Your task to perform on an android device: change the clock style Image 0: 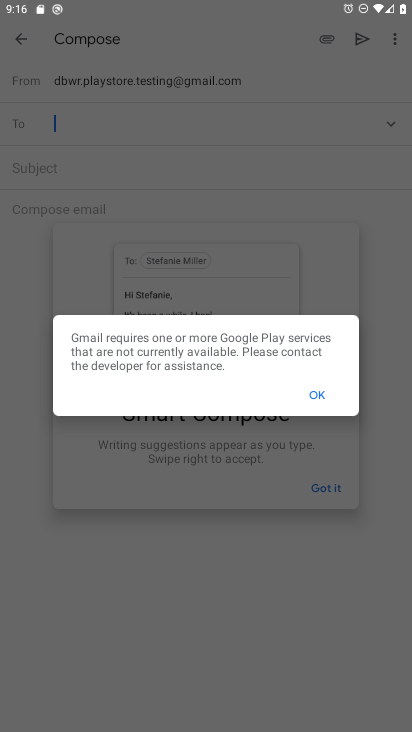
Step 0: press home button
Your task to perform on an android device: change the clock style Image 1: 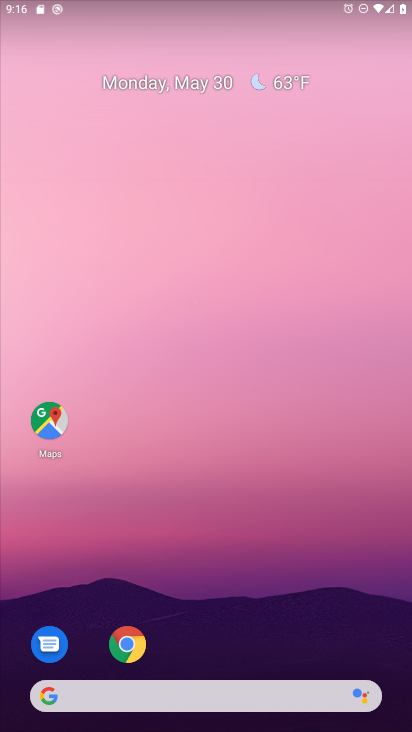
Step 1: drag from (233, 611) to (251, 19)
Your task to perform on an android device: change the clock style Image 2: 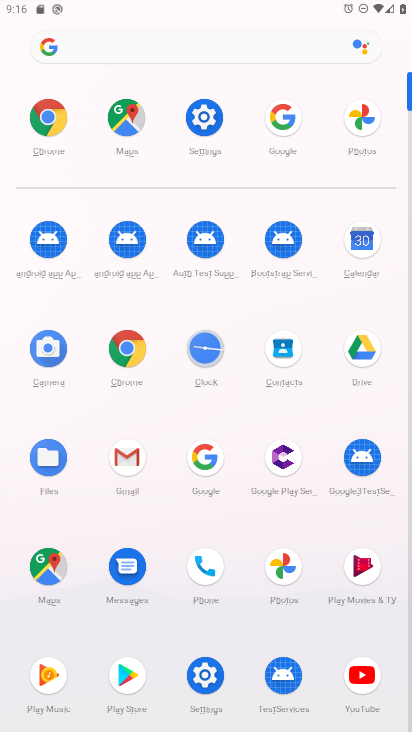
Step 2: click (207, 351)
Your task to perform on an android device: change the clock style Image 3: 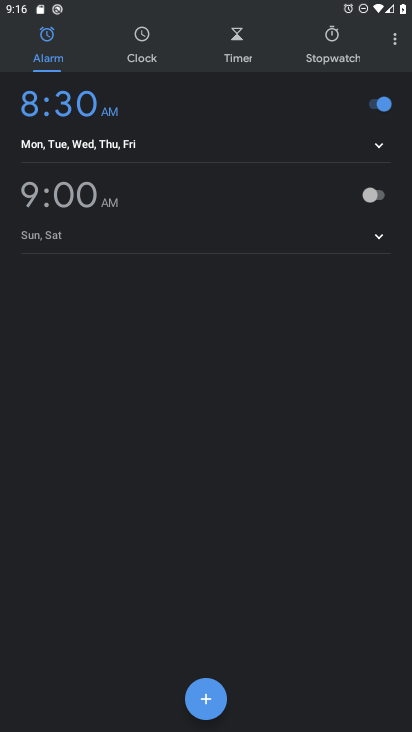
Step 3: click (392, 40)
Your task to perform on an android device: change the clock style Image 4: 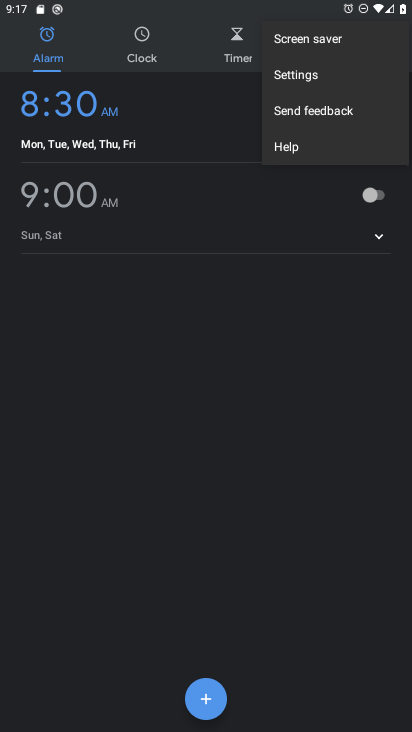
Step 4: click (297, 79)
Your task to perform on an android device: change the clock style Image 5: 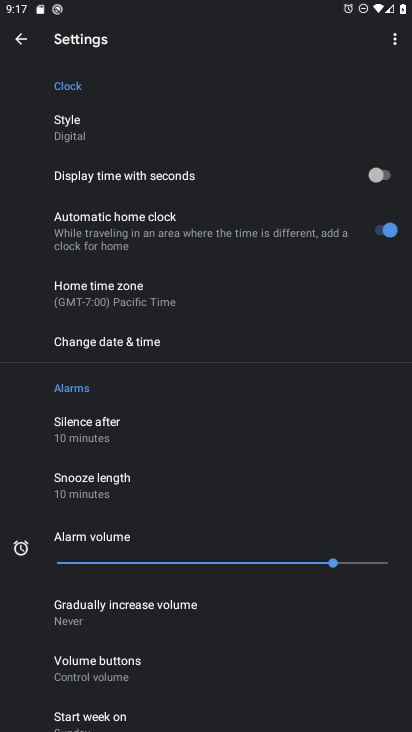
Step 5: click (74, 122)
Your task to perform on an android device: change the clock style Image 6: 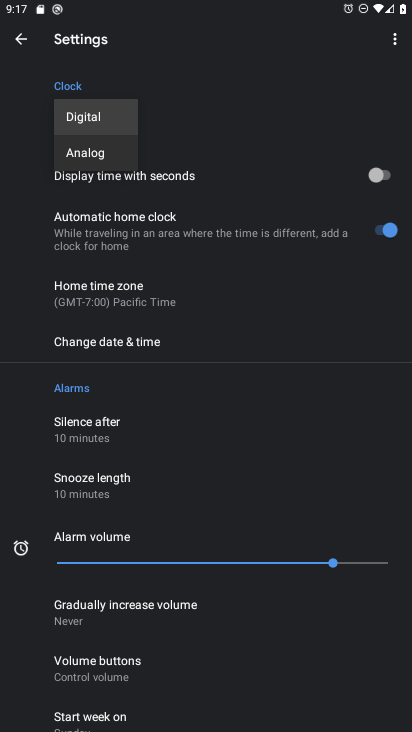
Step 6: click (94, 147)
Your task to perform on an android device: change the clock style Image 7: 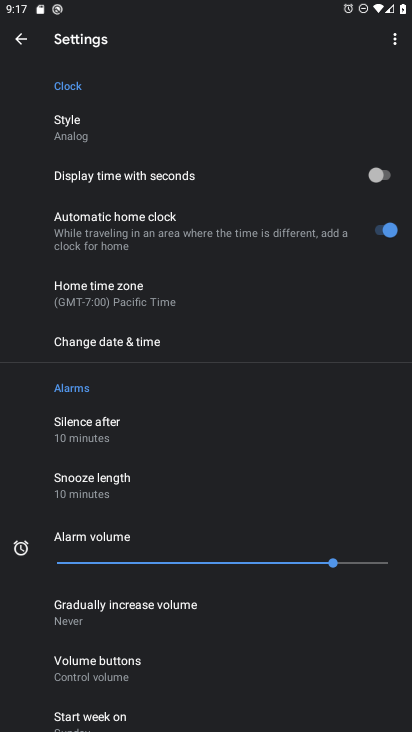
Step 7: task complete